Your task to perform on an android device: move an email to a new category in the gmail app Image 0: 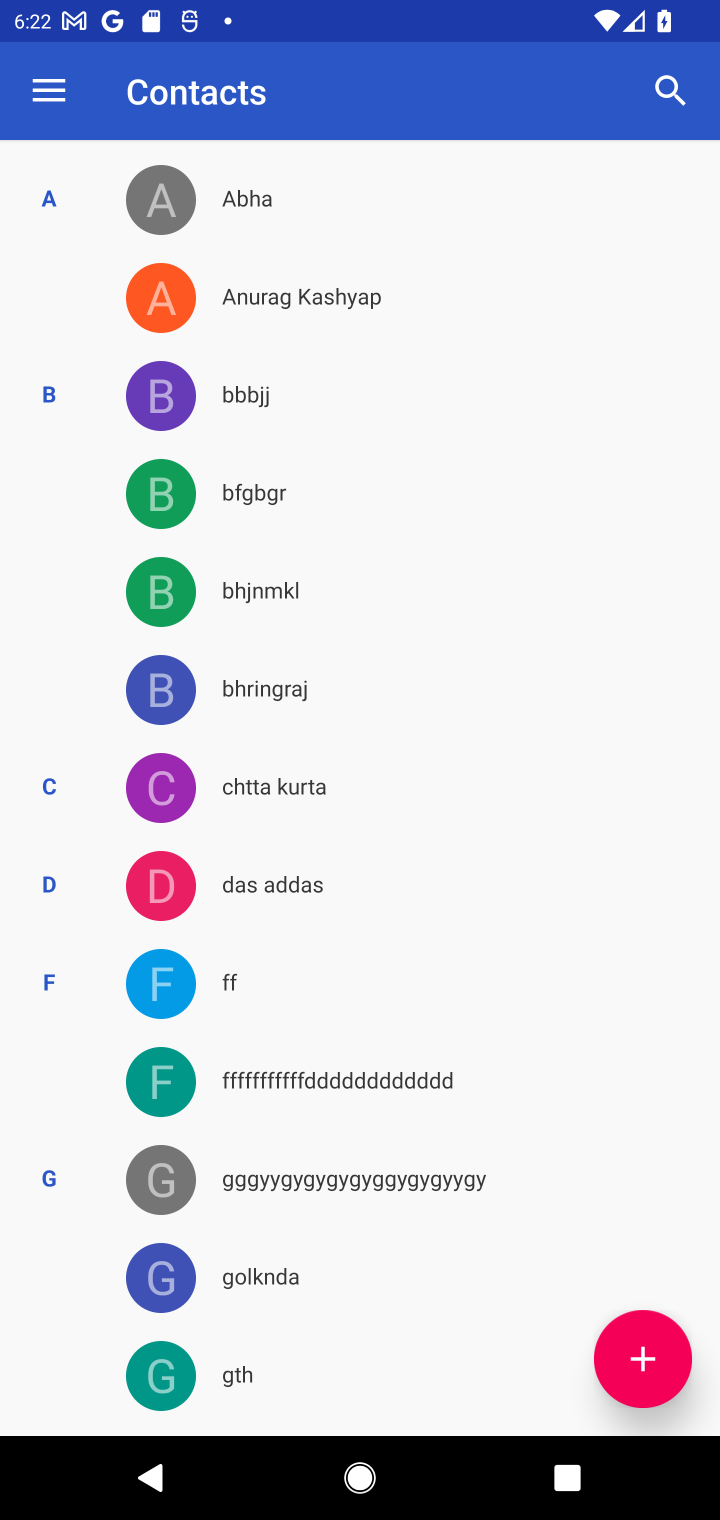
Step 0: press home button
Your task to perform on an android device: move an email to a new category in the gmail app Image 1: 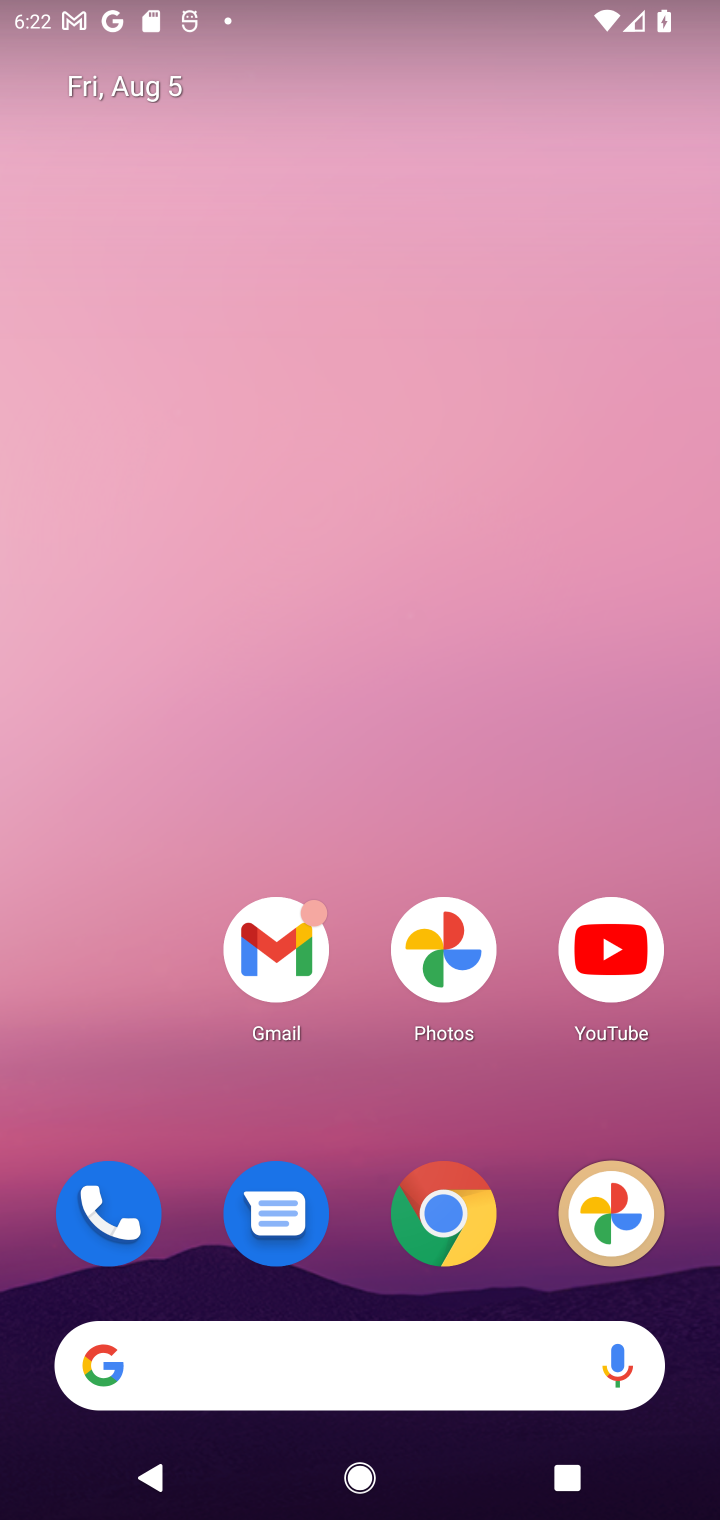
Step 1: click (243, 966)
Your task to perform on an android device: move an email to a new category in the gmail app Image 2: 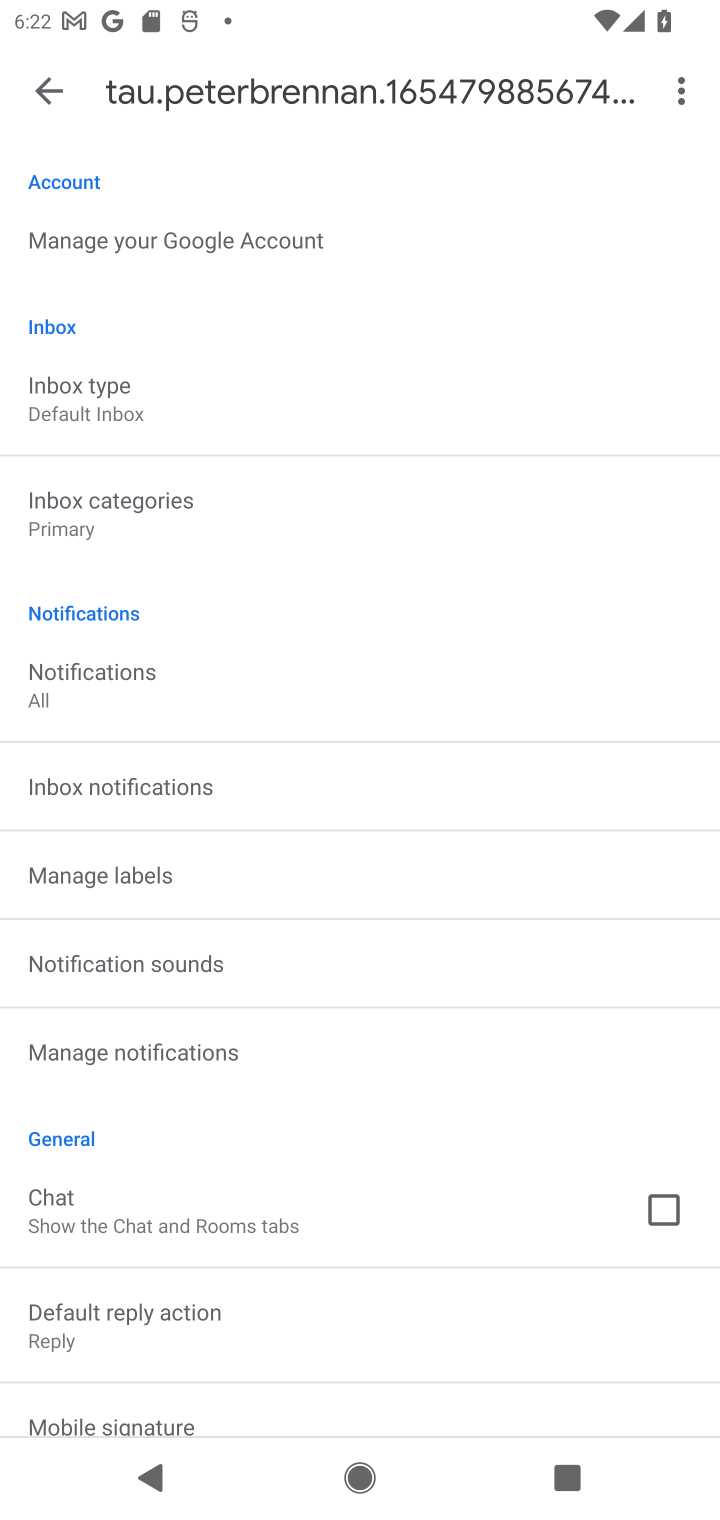
Step 2: task complete